Your task to perform on an android device: Open privacy settings Image 0: 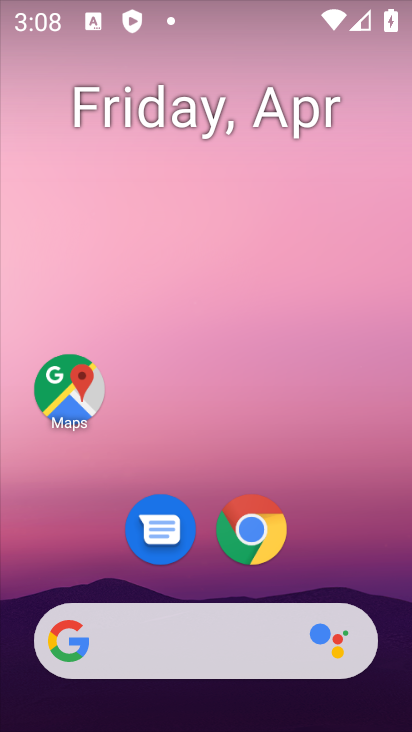
Step 0: drag from (287, 574) to (296, 358)
Your task to perform on an android device: Open privacy settings Image 1: 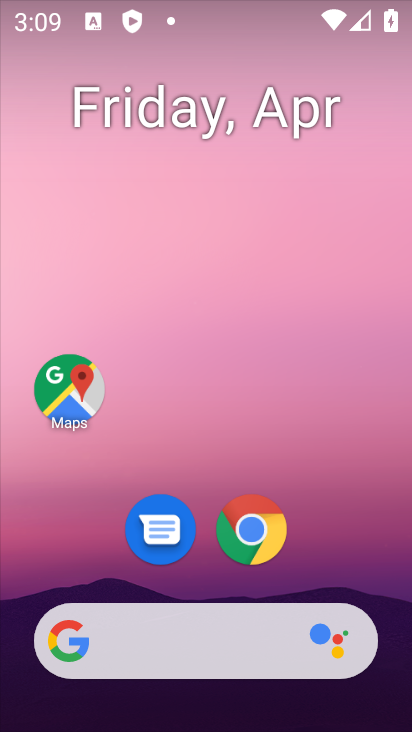
Step 1: drag from (316, 481) to (326, 190)
Your task to perform on an android device: Open privacy settings Image 2: 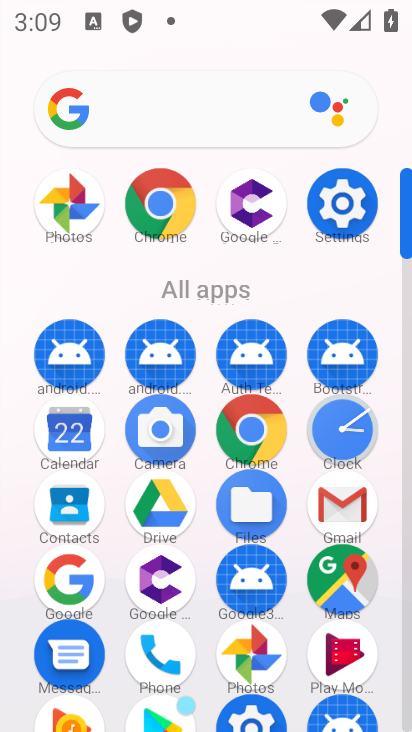
Step 2: click (361, 207)
Your task to perform on an android device: Open privacy settings Image 3: 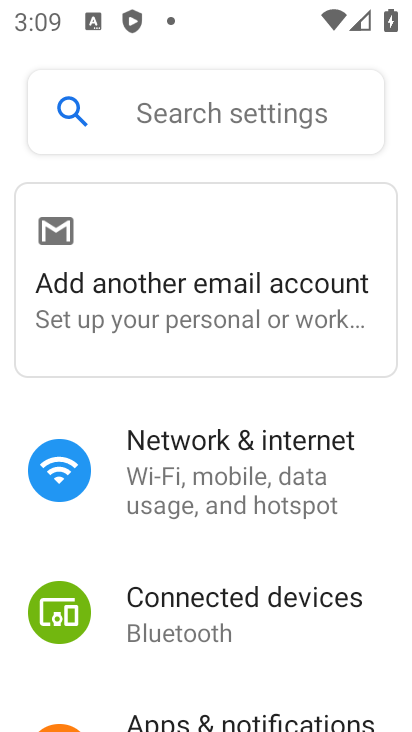
Step 3: drag from (259, 498) to (262, 172)
Your task to perform on an android device: Open privacy settings Image 4: 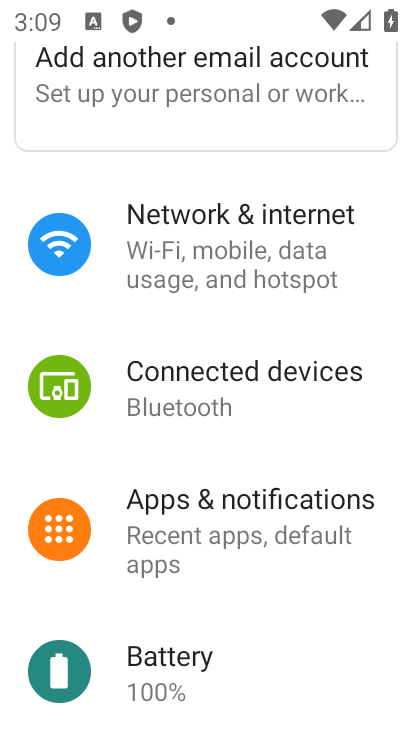
Step 4: drag from (237, 522) to (250, 249)
Your task to perform on an android device: Open privacy settings Image 5: 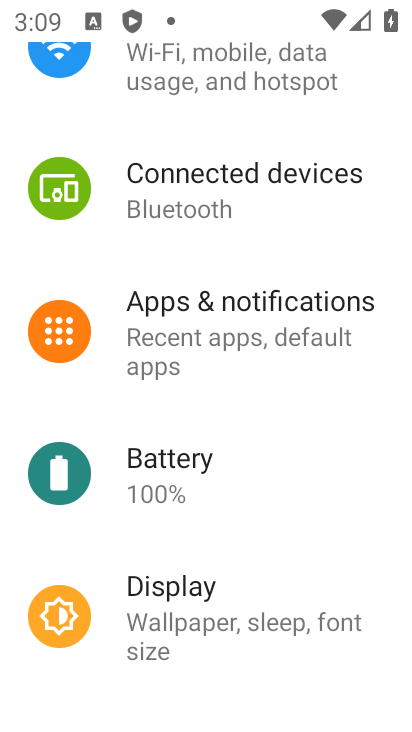
Step 5: drag from (275, 493) to (299, 215)
Your task to perform on an android device: Open privacy settings Image 6: 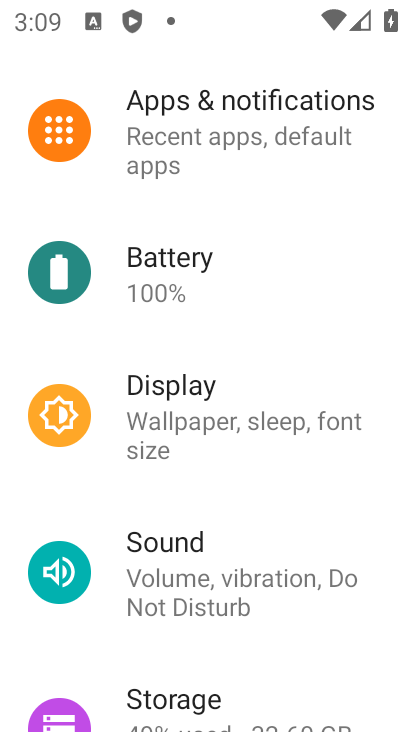
Step 6: drag from (271, 572) to (295, 262)
Your task to perform on an android device: Open privacy settings Image 7: 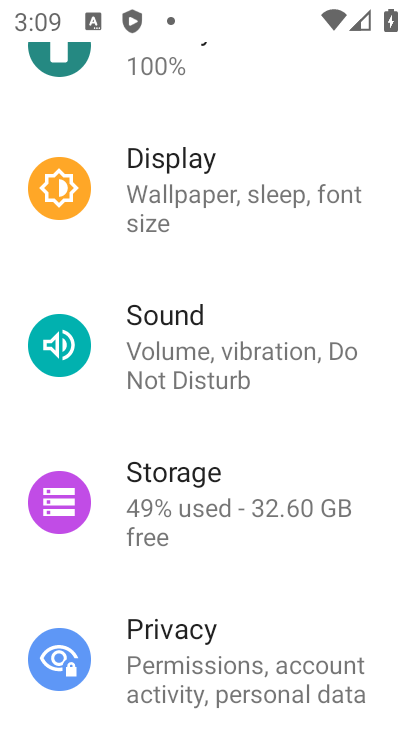
Step 7: click (252, 668)
Your task to perform on an android device: Open privacy settings Image 8: 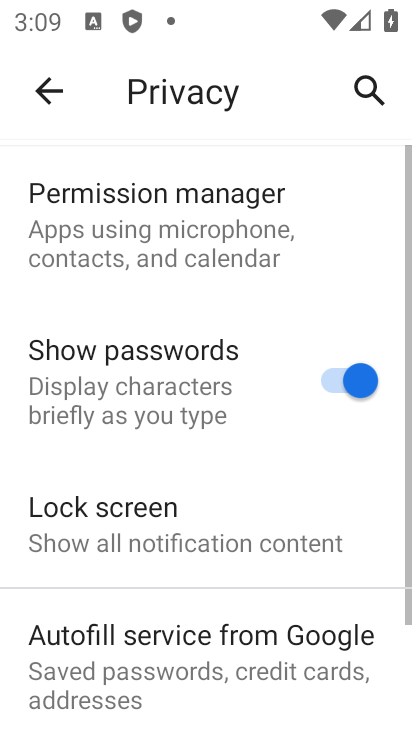
Step 8: task complete